Your task to perform on an android device: Go to network settings Image 0: 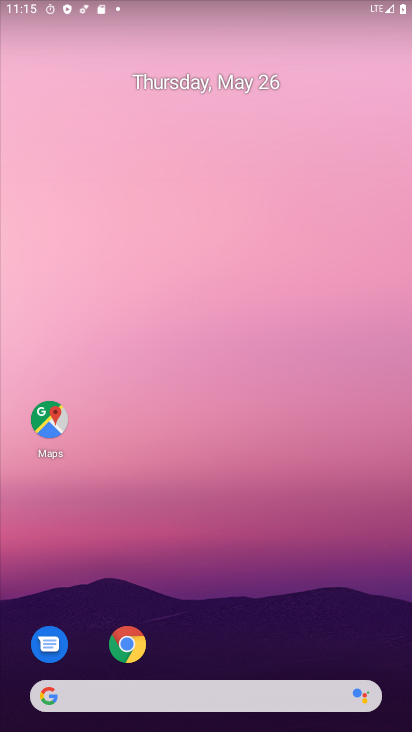
Step 0: drag from (120, 731) to (112, 3)
Your task to perform on an android device: Go to network settings Image 1: 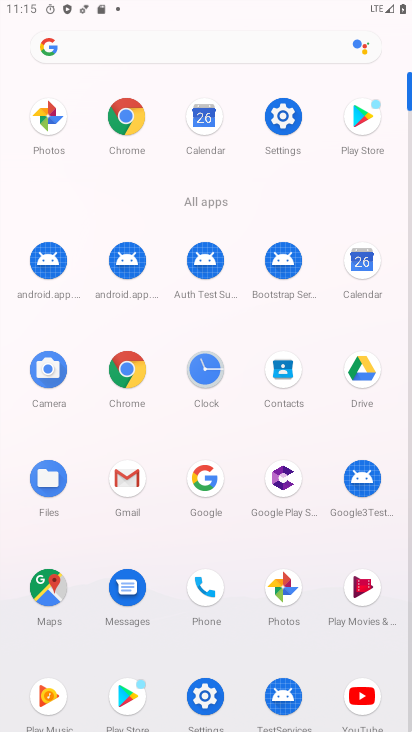
Step 1: click (282, 116)
Your task to perform on an android device: Go to network settings Image 2: 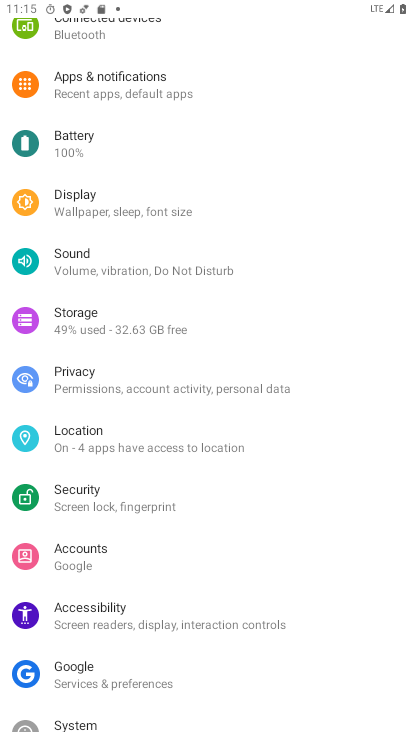
Step 2: drag from (197, 60) to (229, 654)
Your task to perform on an android device: Go to network settings Image 3: 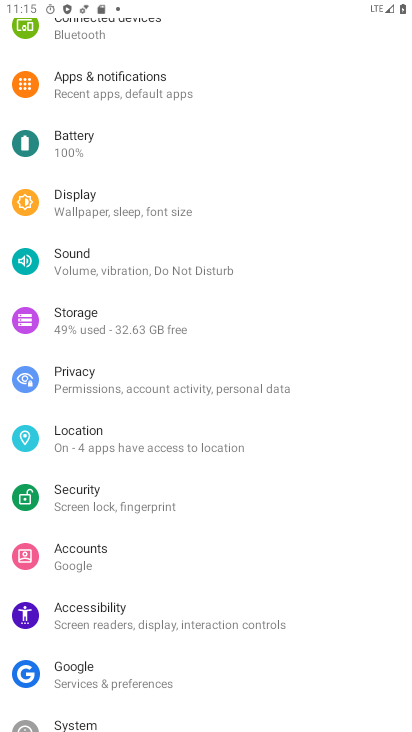
Step 3: drag from (305, 56) to (354, 581)
Your task to perform on an android device: Go to network settings Image 4: 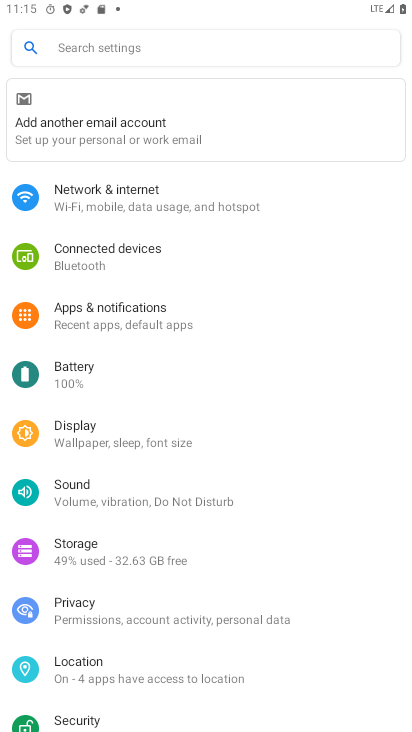
Step 4: click (181, 198)
Your task to perform on an android device: Go to network settings Image 5: 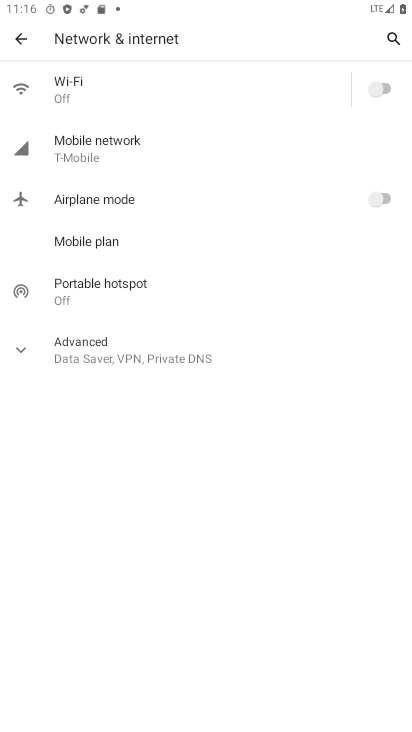
Step 5: click (134, 153)
Your task to perform on an android device: Go to network settings Image 6: 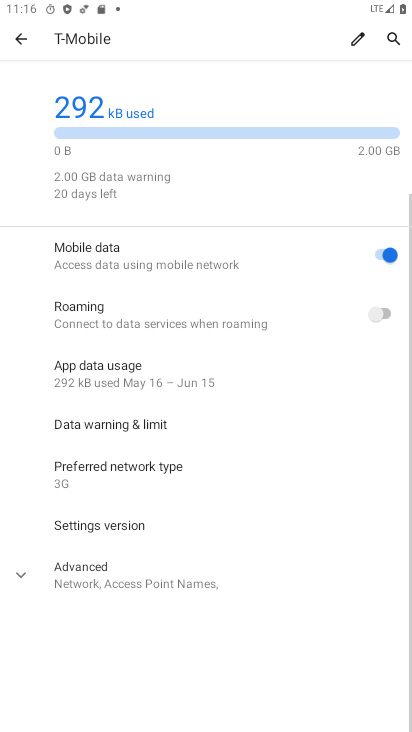
Step 6: click (112, 577)
Your task to perform on an android device: Go to network settings Image 7: 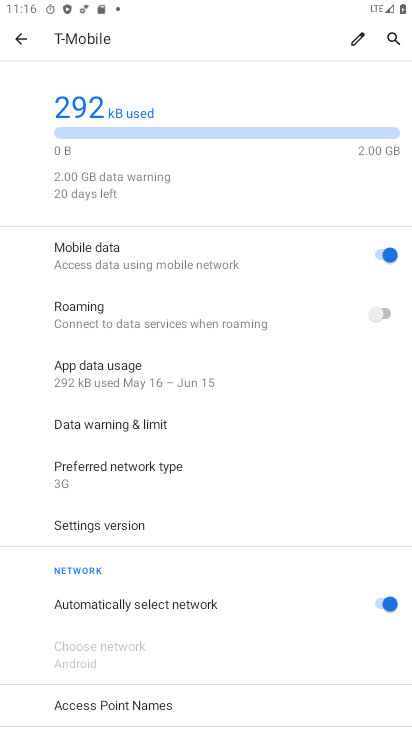
Step 7: task complete